Your task to perform on an android device: Go to sound settings Image 0: 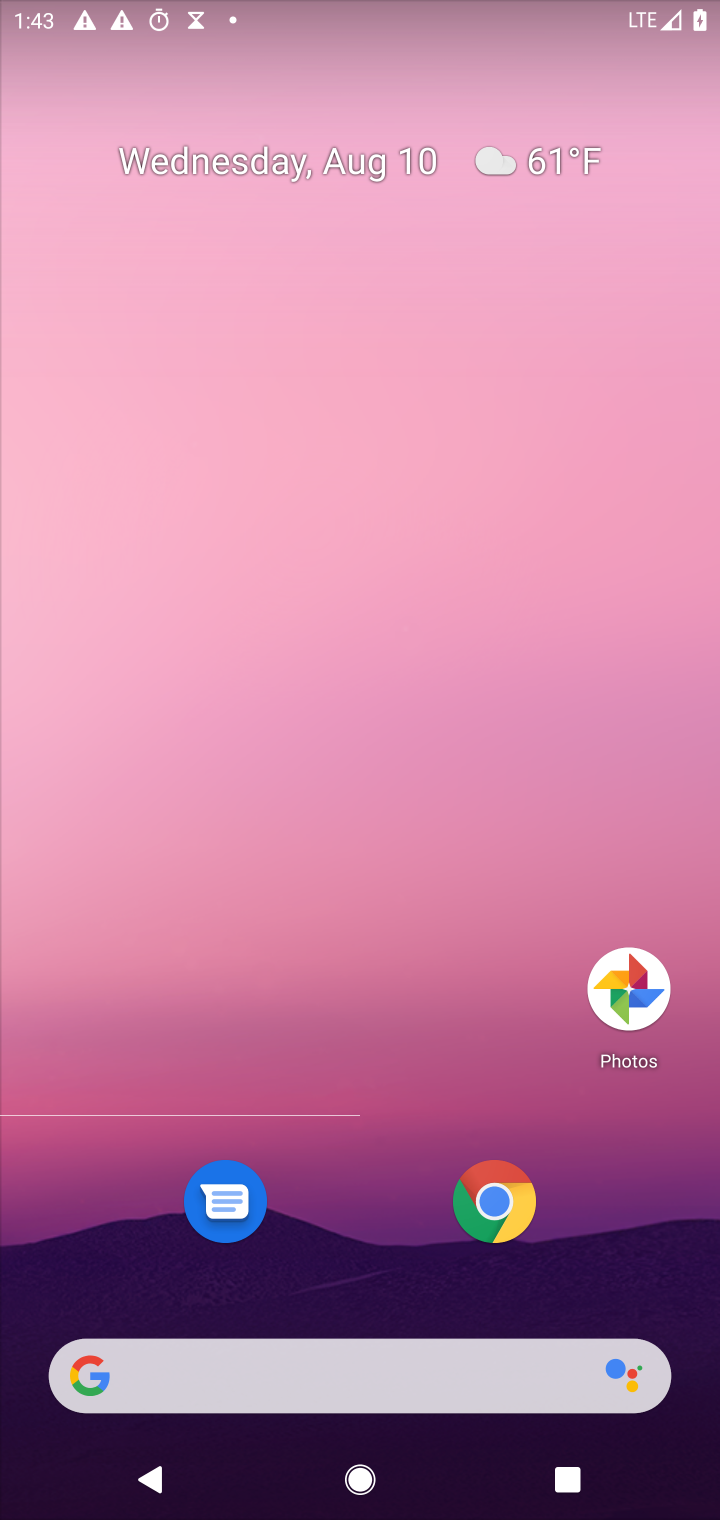
Step 0: drag from (498, 883) to (414, 231)
Your task to perform on an android device: Go to sound settings Image 1: 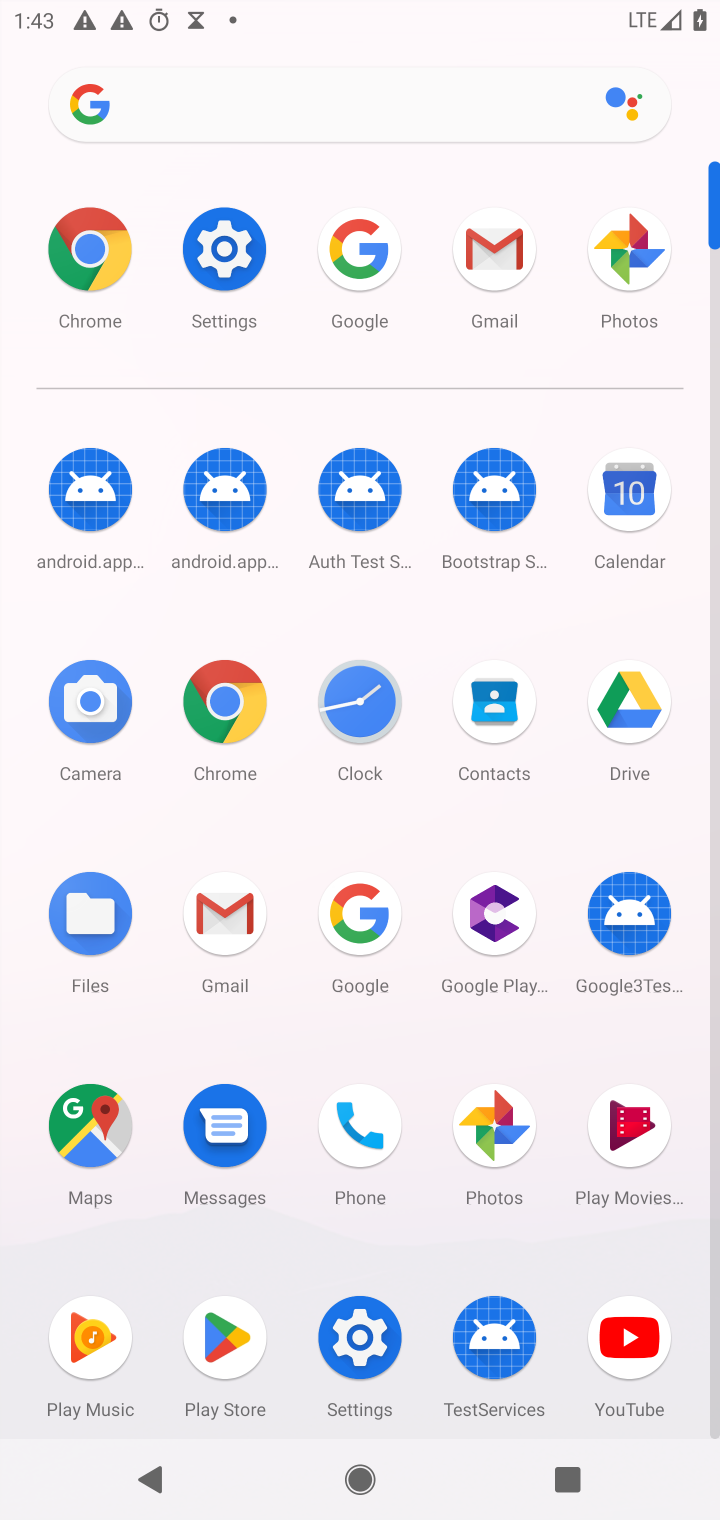
Step 1: click (238, 229)
Your task to perform on an android device: Go to sound settings Image 2: 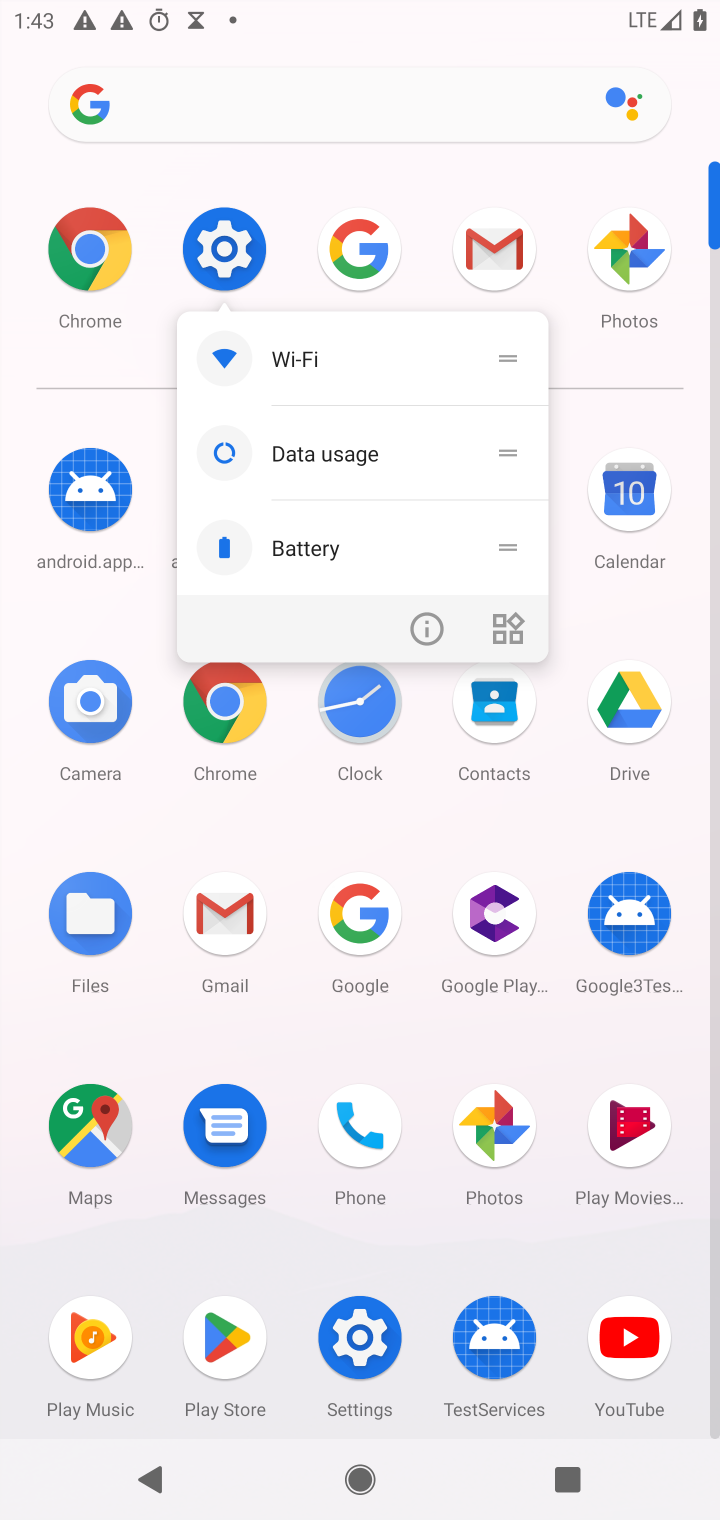
Step 2: click (238, 229)
Your task to perform on an android device: Go to sound settings Image 3: 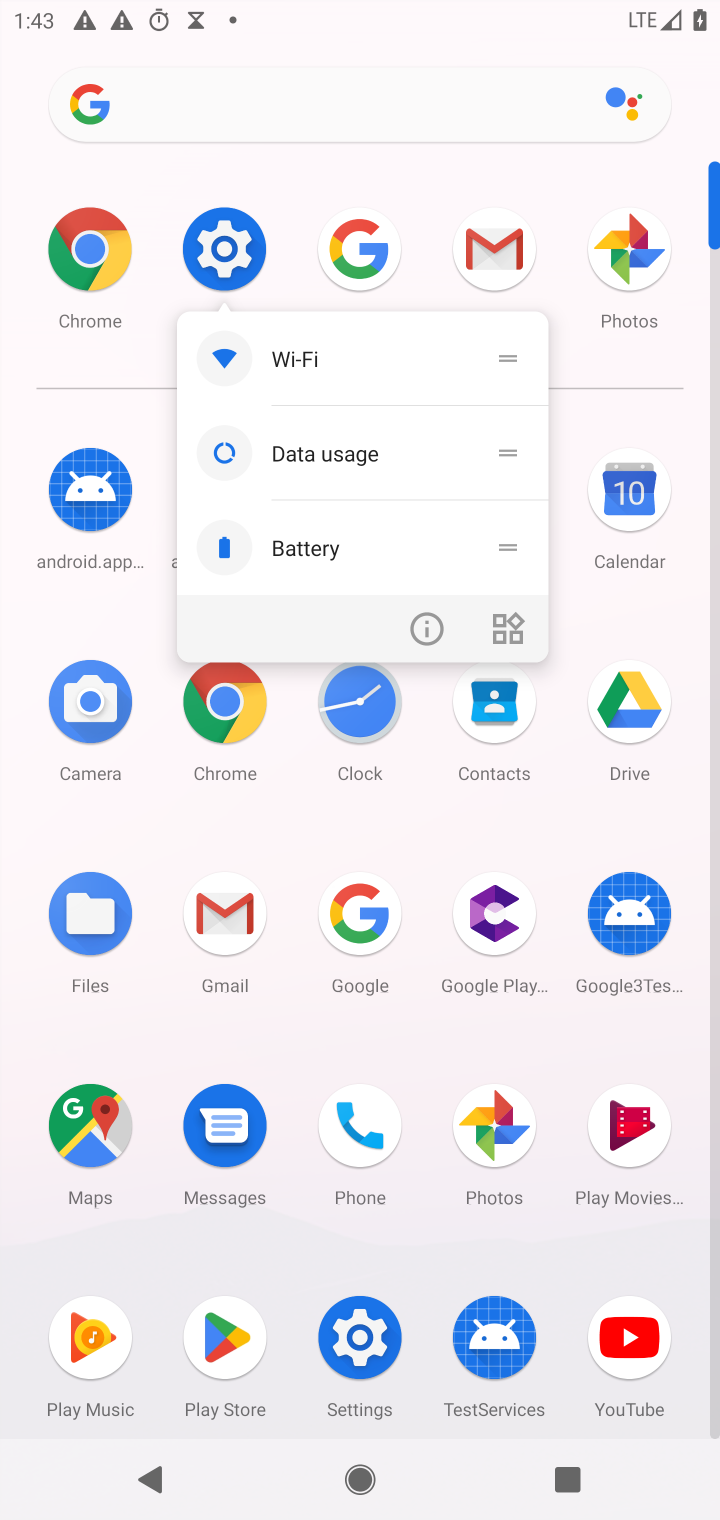
Step 3: click (209, 245)
Your task to perform on an android device: Go to sound settings Image 4: 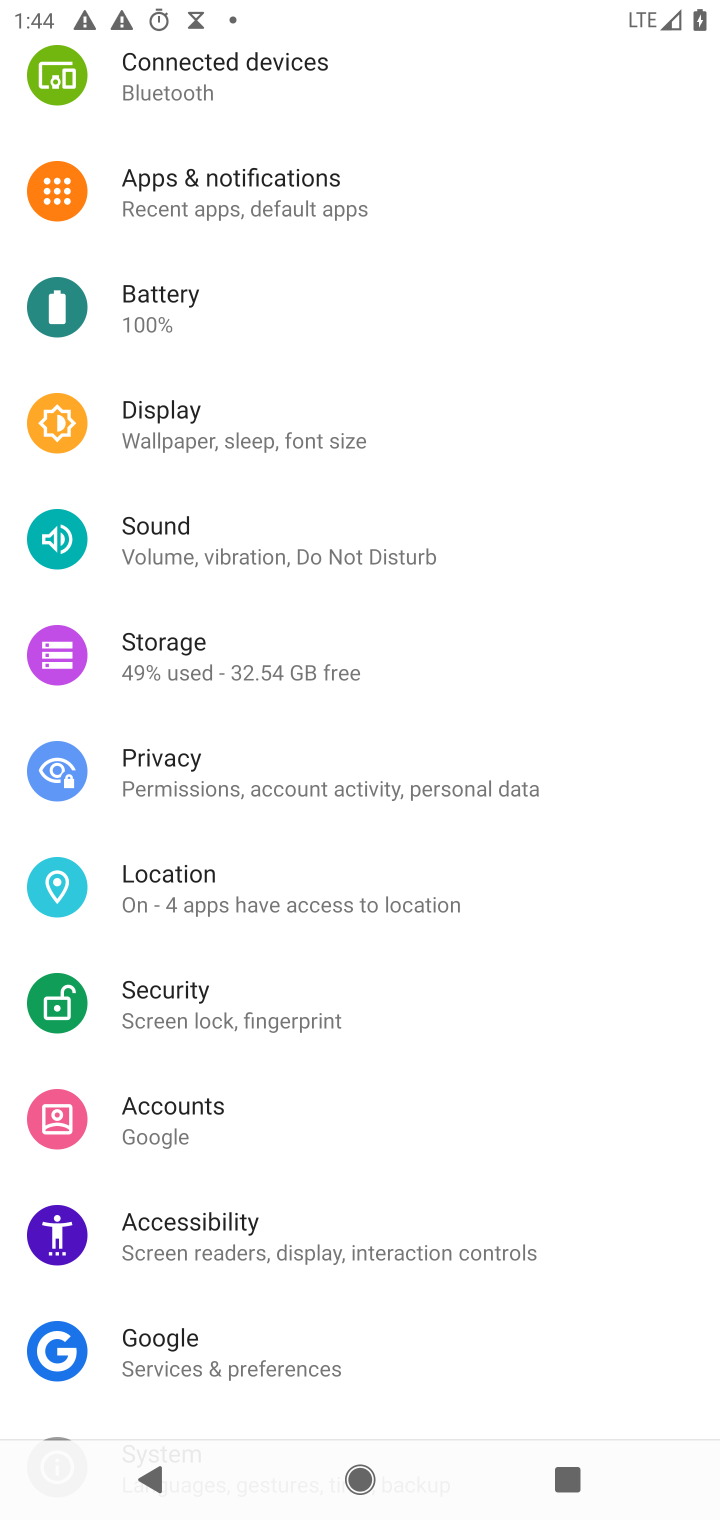
Step 4: click (139, 546)
Your task to perform on an android device: Go to sound settings Image 5: 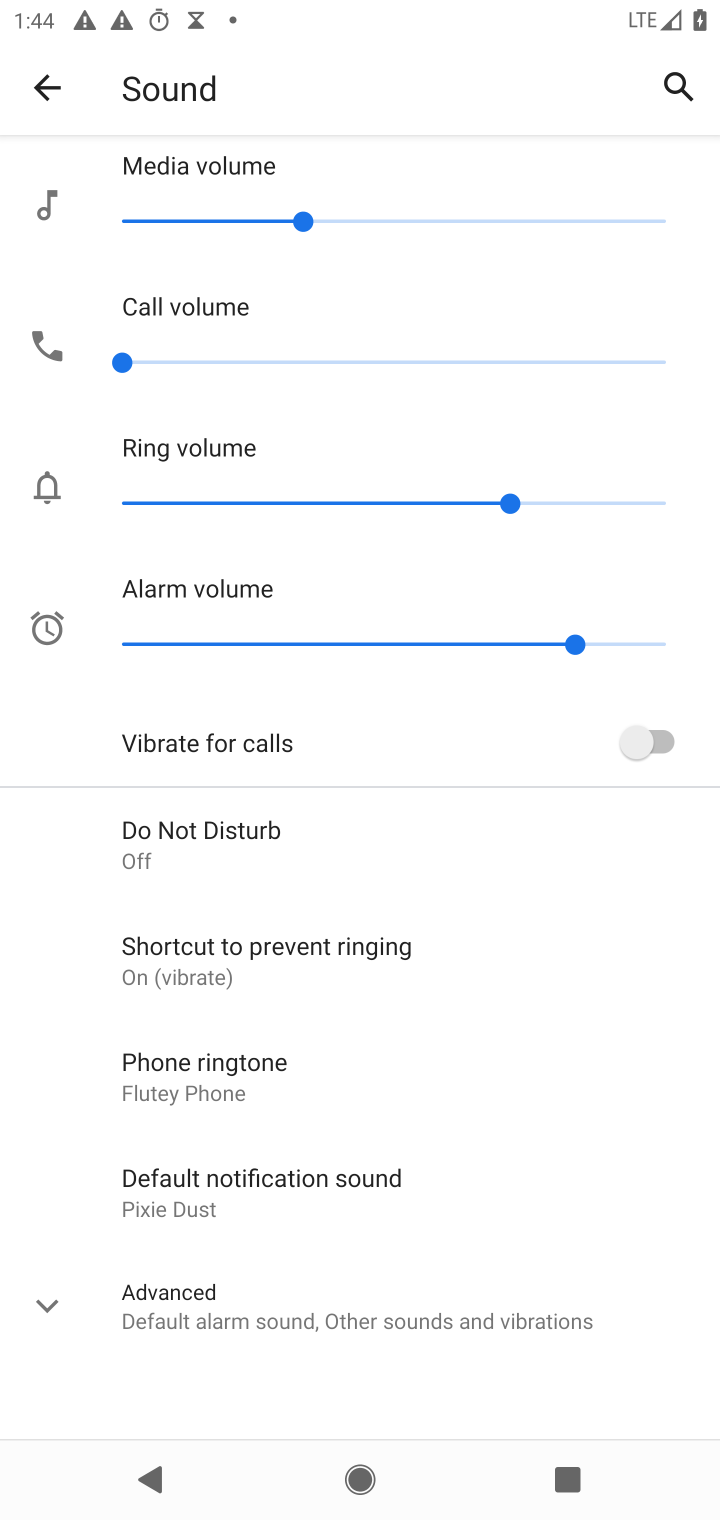
Step 5: task complete